Your task to perform on an android device: Show me recent news Image 0: 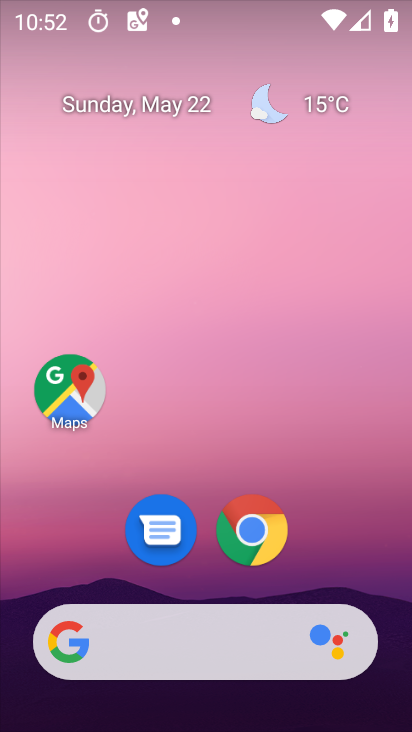
Step 0: drag from (0, 261) to (285, 249)
Your task to perform on an android device: Show me recent news Image 1: 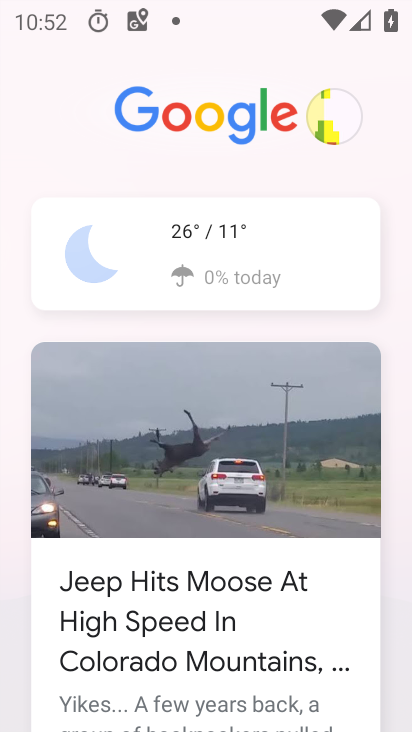
Step 1: task complete